Your task to perform on an android device: create a new album in the google photos Image 0: 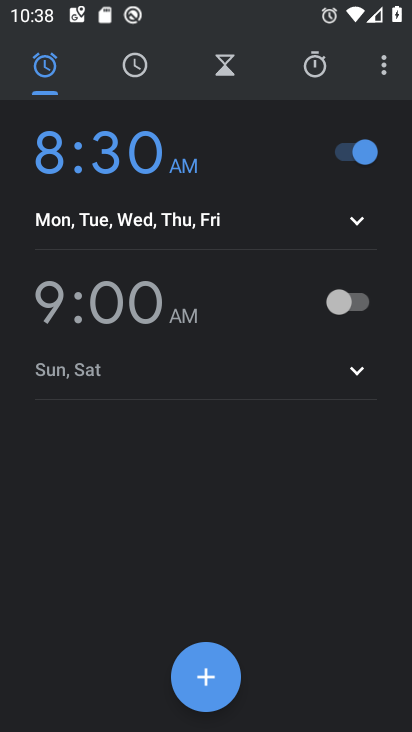
Step 0: press home button
Your task to perform on an android device: create a new album in the google photos Image 1: 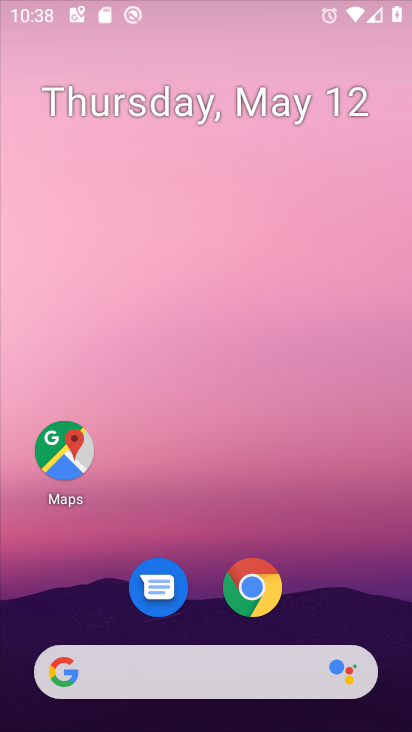
Step 1: drag from (395, 635) to (256, 49)
Your task to perform on an android device: create a new album in the google photos Image 2: 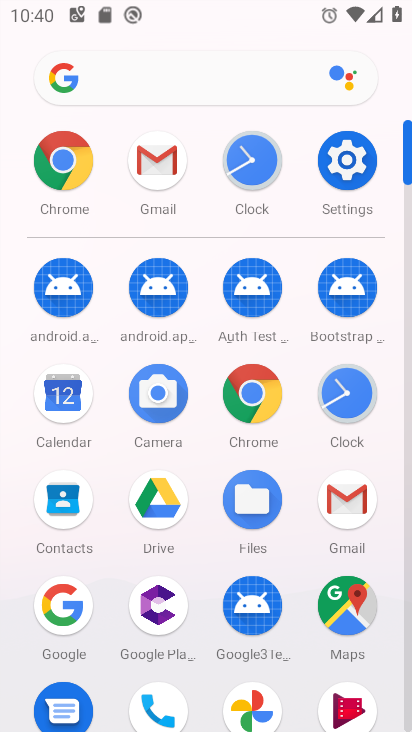
Step 2: click (257, 694)
Your task to perform on an android device: create a new album in the google photos Image 3: 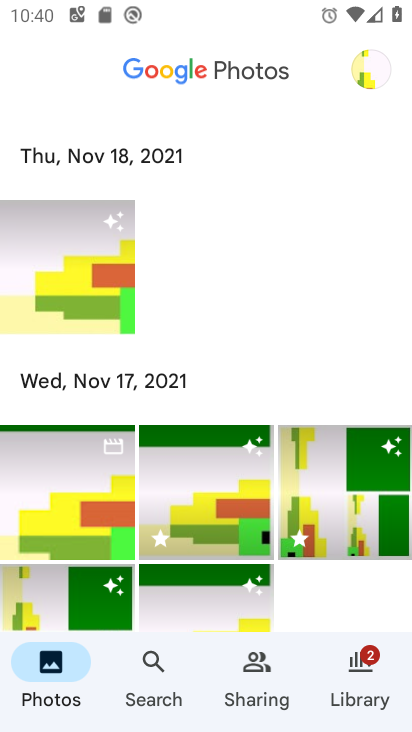
Step 3: click (90, 264)
Your task to perform on an android device: create a new album in the google photos Image 4: 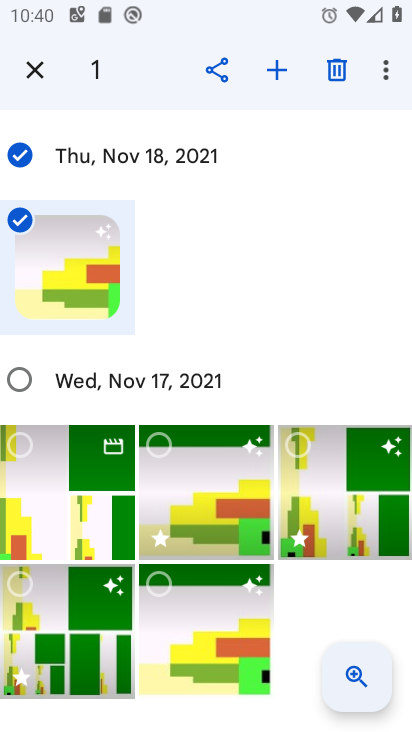
Step 4: click (277, 75)
Your task to perform on an android device: create a new album in the google photos Image 5: 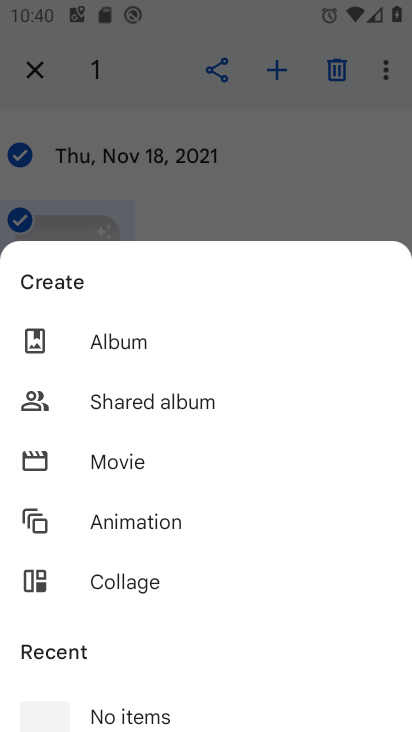
Step 5: click (202, 348)
Your task to perform on an android device: create a new album in the google photos Image 6: 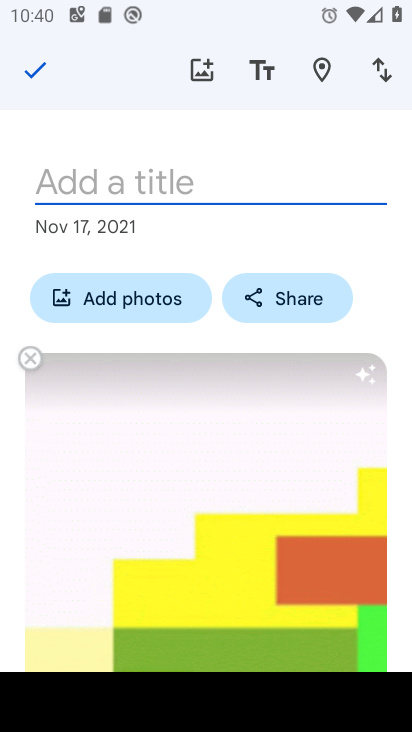
Step 6: type "MN"
Your task to perform on an android device: create a new album in the google photos Image 7: 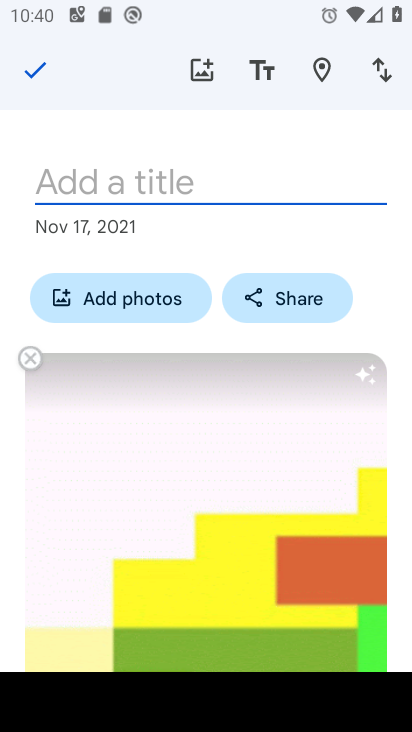
Step 7: click (23, 70)
Your task to perform on an android device: create a new album in the google photos Image 8: 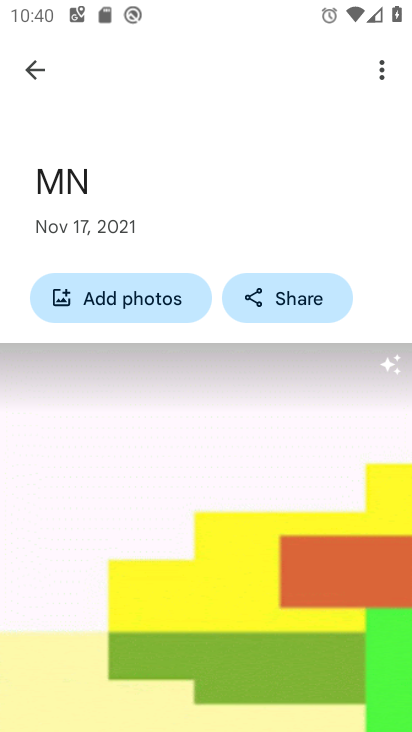
Step 8: task complete